Your task to perform on an android device: Open location settings Image 0: 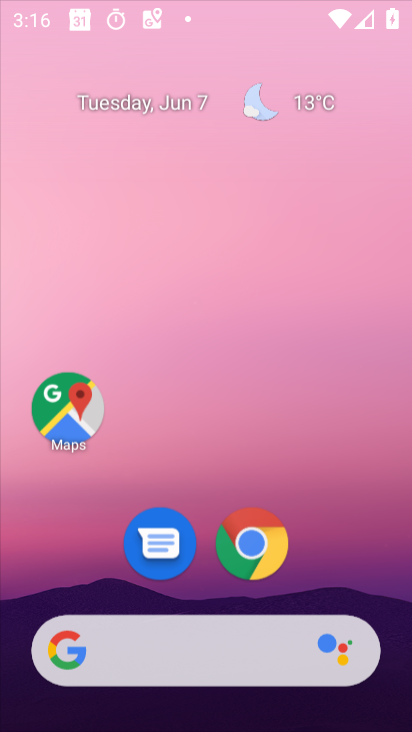
Step 0: drag from (350, 560) to (233, 7)
Your task to perform on an android device: Open location settings Image 1: 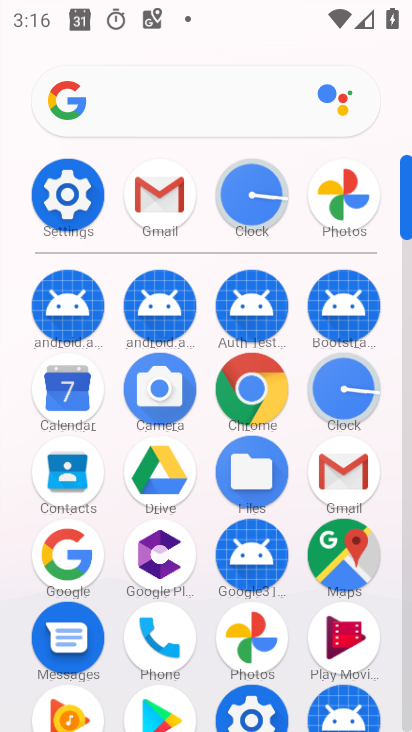
Step 1: click (68, 197)
Your task to perform on an android device: Open location settings Image 2: 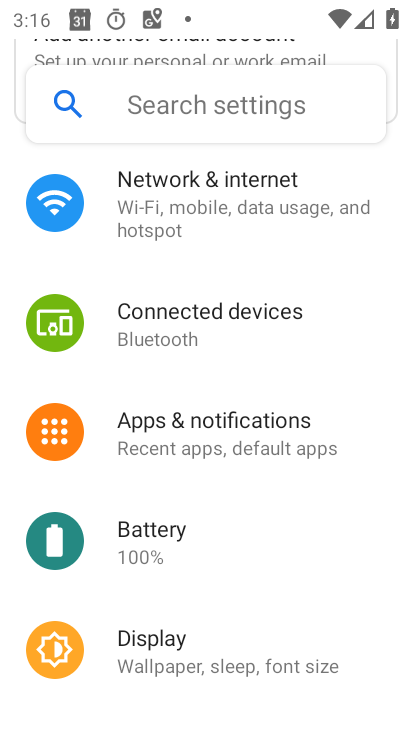
Step 2: drag from (251, 697) to (257, 85)
Your task to perform on an android device: Open location settings Image 3: 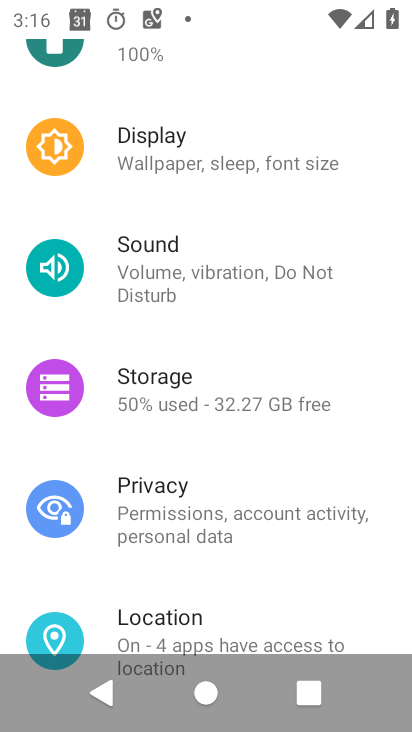
Step 3: click (200, 619)
Your task to perform on an android device: Open location settings Image 4: 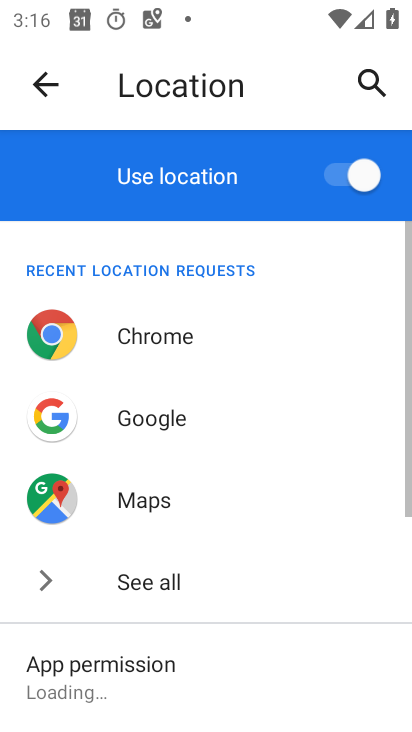
Step 4: task complete